Your task to perform on an android device: Empty the shopping cart on target. Search for "alienware aurora" on target, select the first entry, and add it to the cart. Image 0: 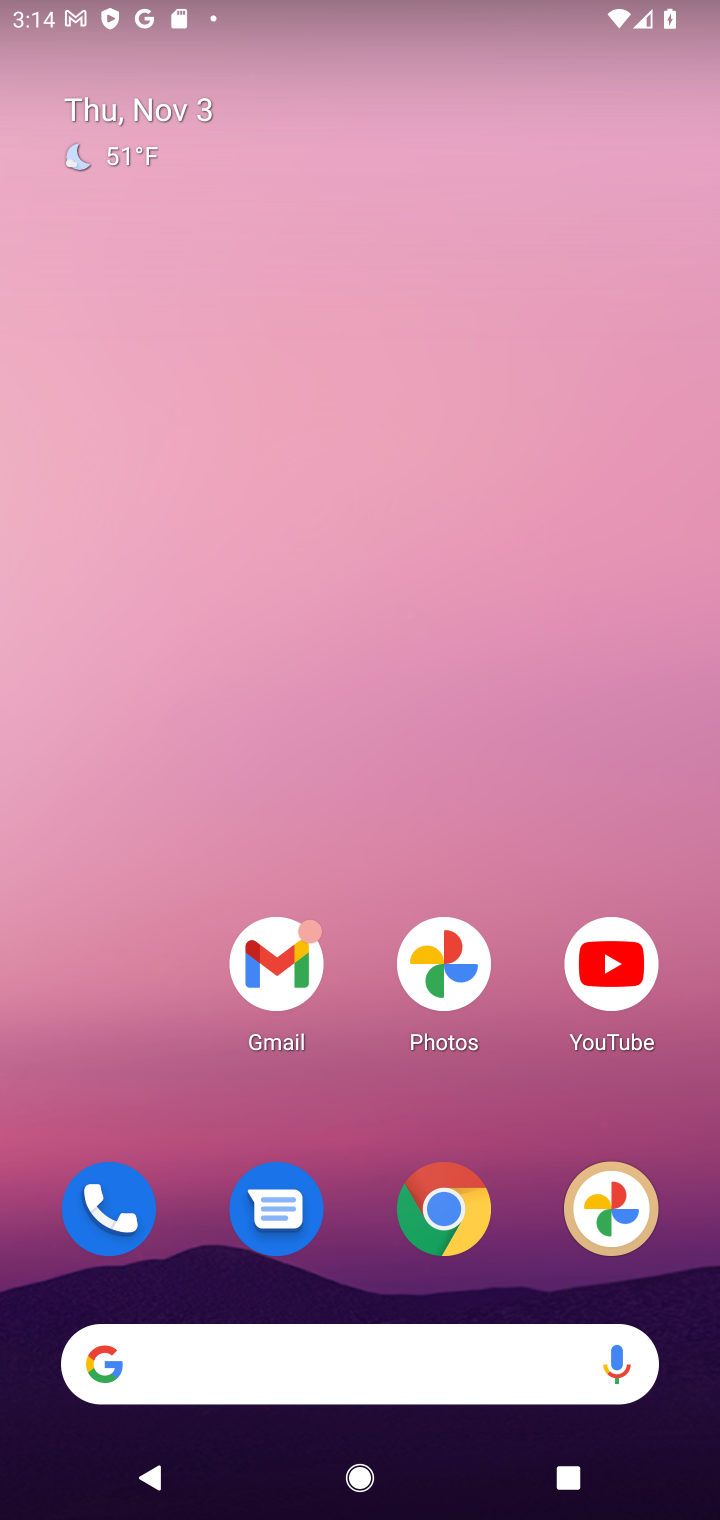
Step 0: click (424, 1262)
Your task to perform on an android device: Empty the shopping cart on target. Search for "alienware aurora" on target, select the first entry, and add it to the cart. Image 1: 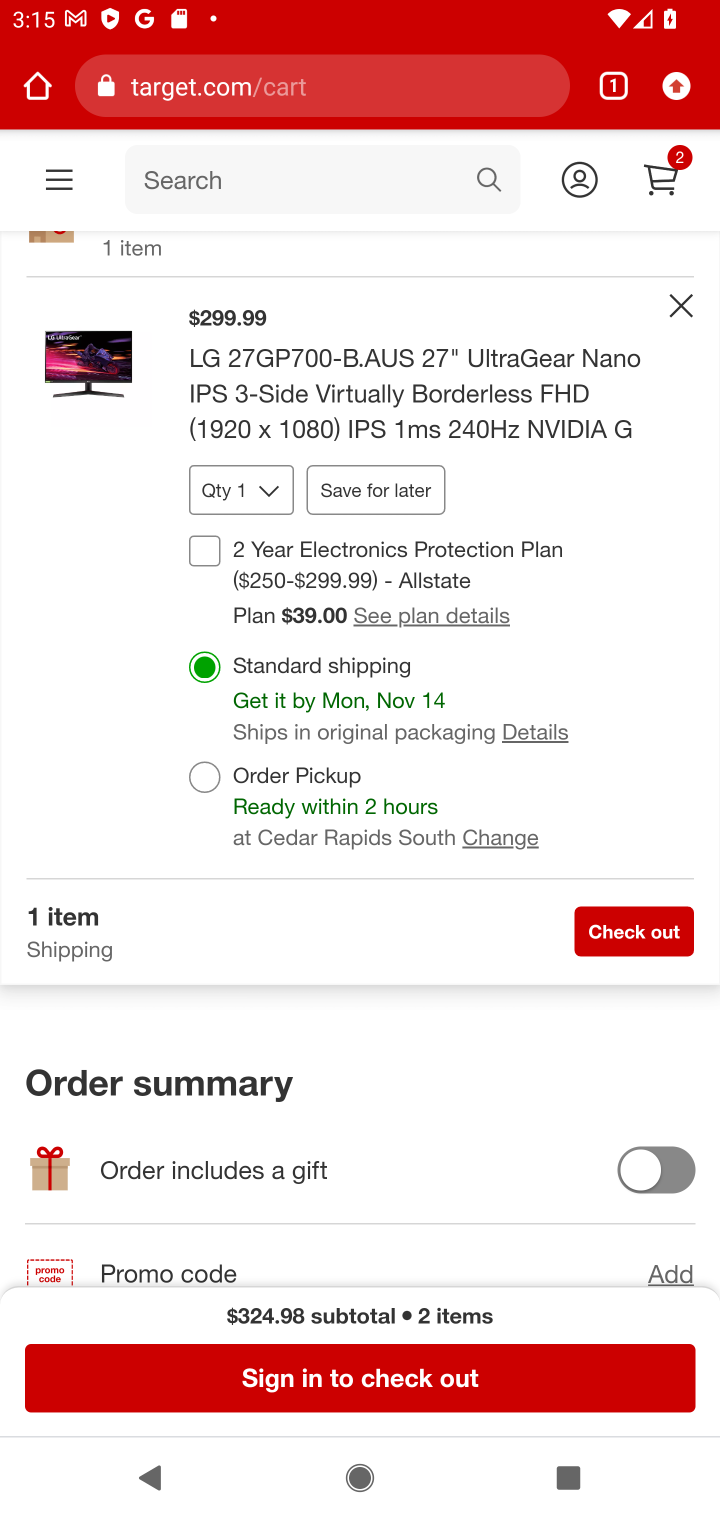
Step 1: click (367, 89)
Your task to perform on an android device: Empty the shopping cart on target. Search for "alienware aurora" on target, select the first entry, and add it to the cart. Image 2: 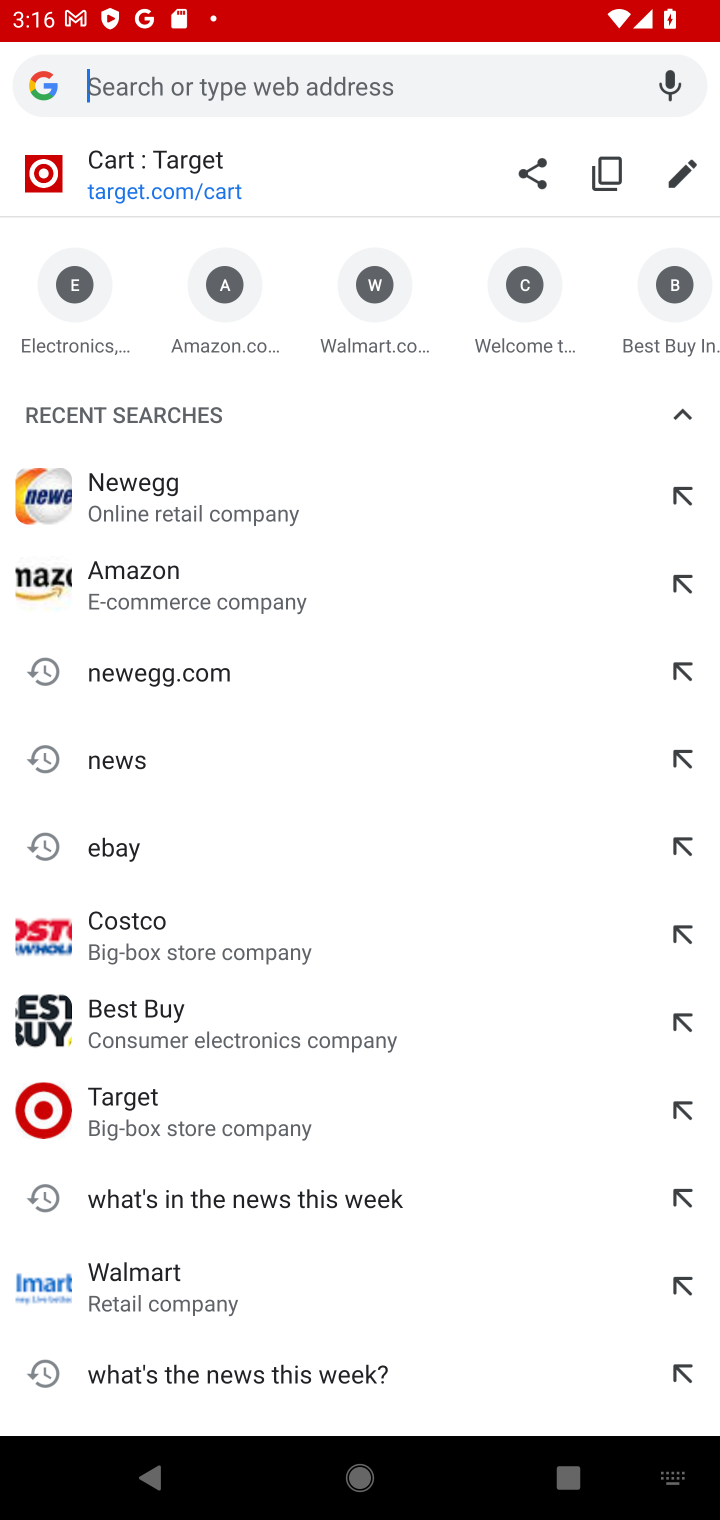
Step 2: type "target.com"
Your task to perform on an android device: Empty the shopping cart on target. Search for "alienware aurora" on target, select the first entry, and add it to the cart. Image 3: 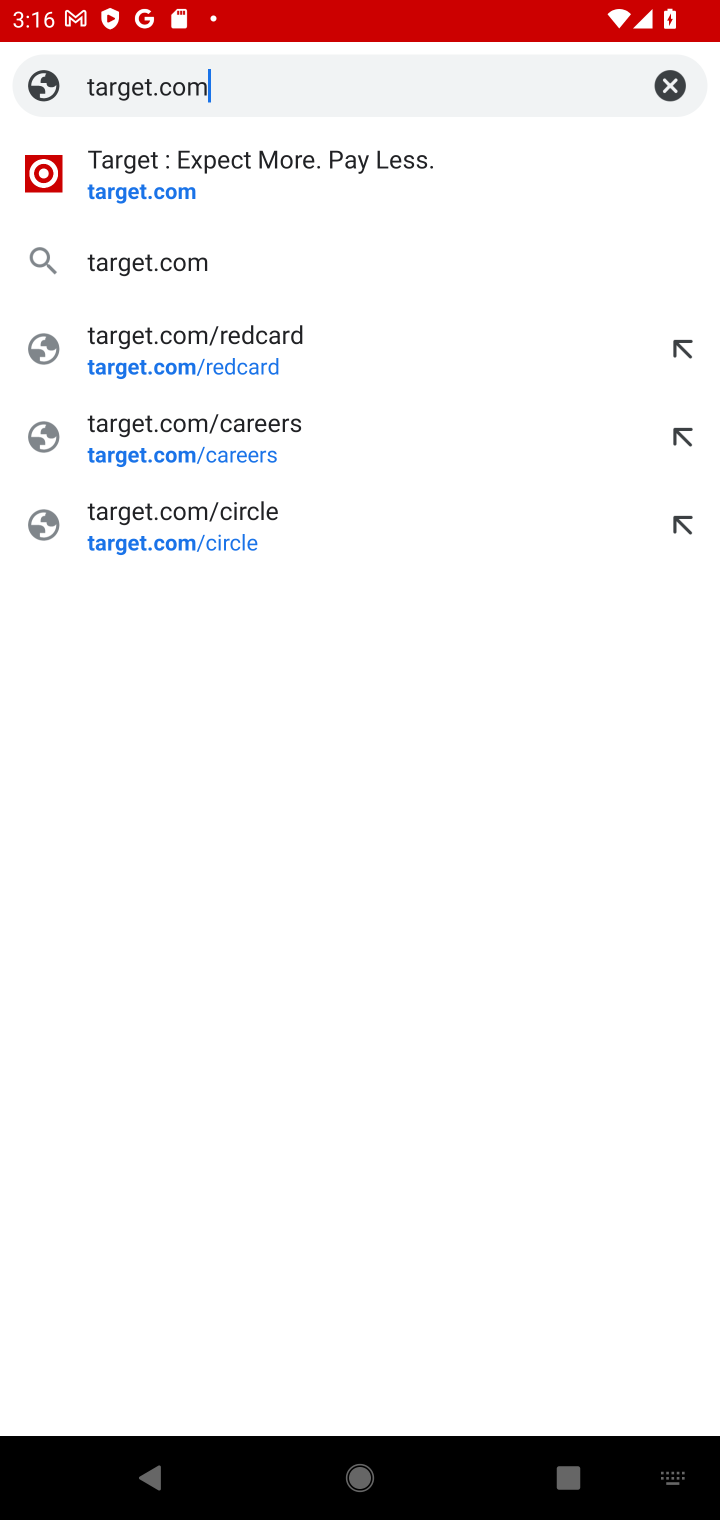
Step 3: click (245, 163)
Your task to perform on an android device: Empty the shopping cart on target. Search for "alienware aurora" on target, select the first entry, and add it to the cart. Image 4: 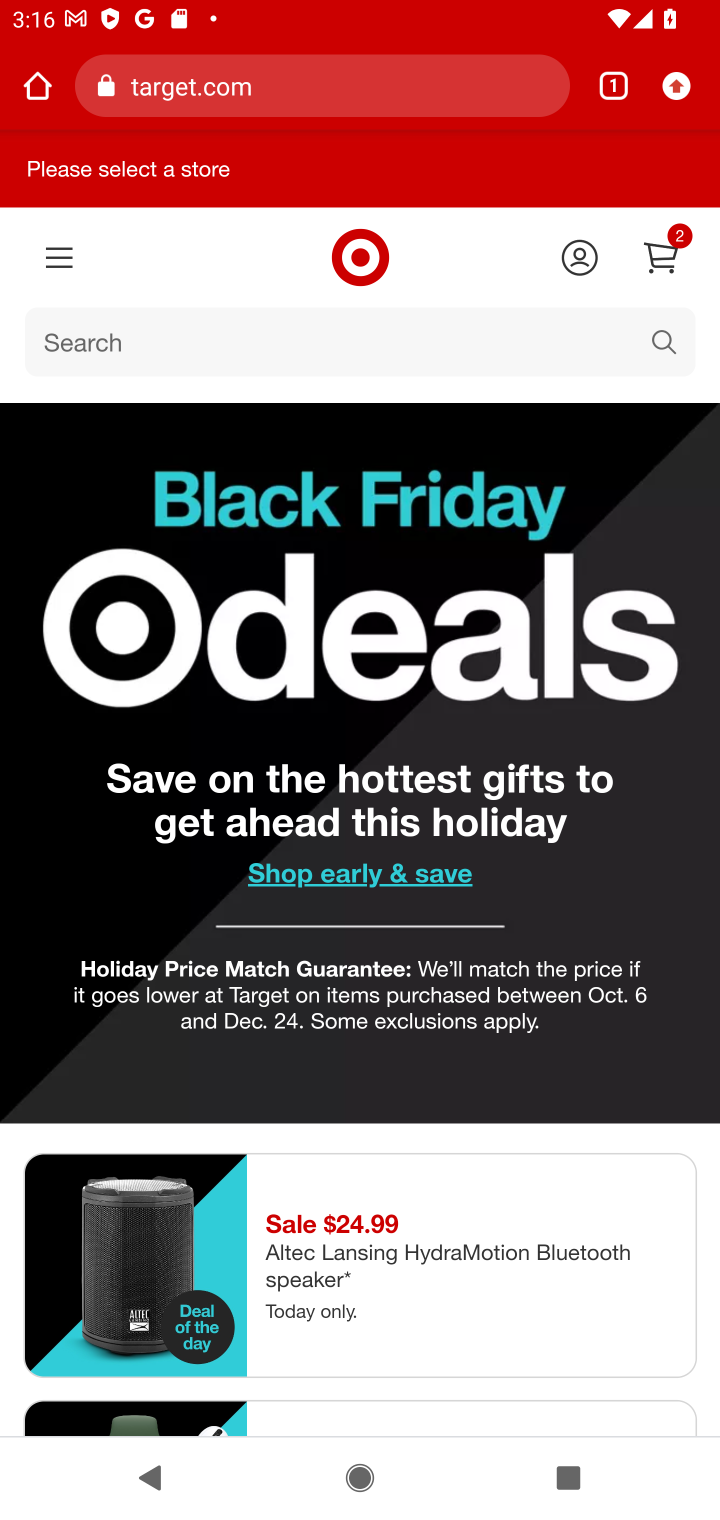
Step 4: click (245, 343)
Your task to perform on an android device: Empty the shopping cart on target. Search for "alienware aurora" on target, select the first entry, and add it to the cart. Image 5: 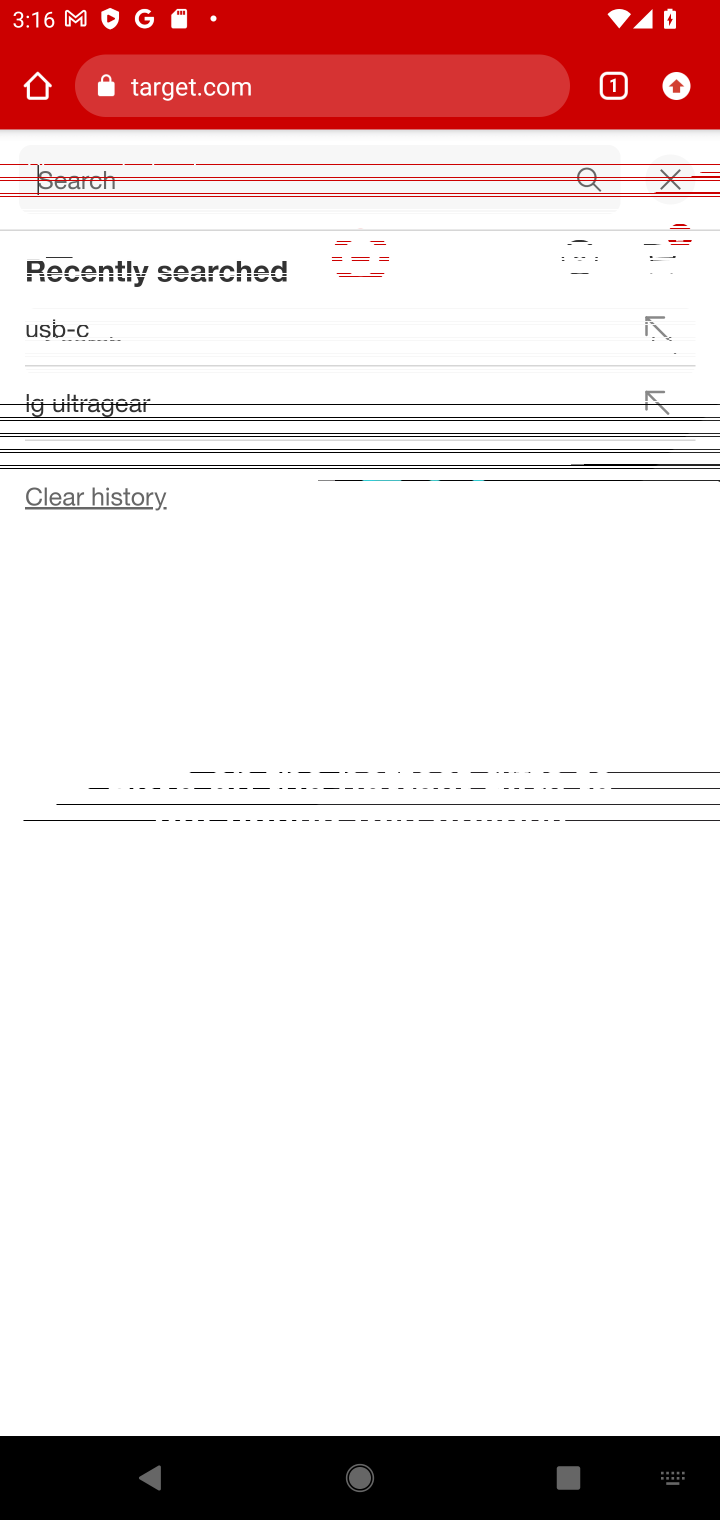
Step 5: type "alienware aurora"
Your task to perform on an android device: Empty the shopping cart on target. Search for "alienware aurora" on target, select the first entry, and add it to the cart. Image 6: 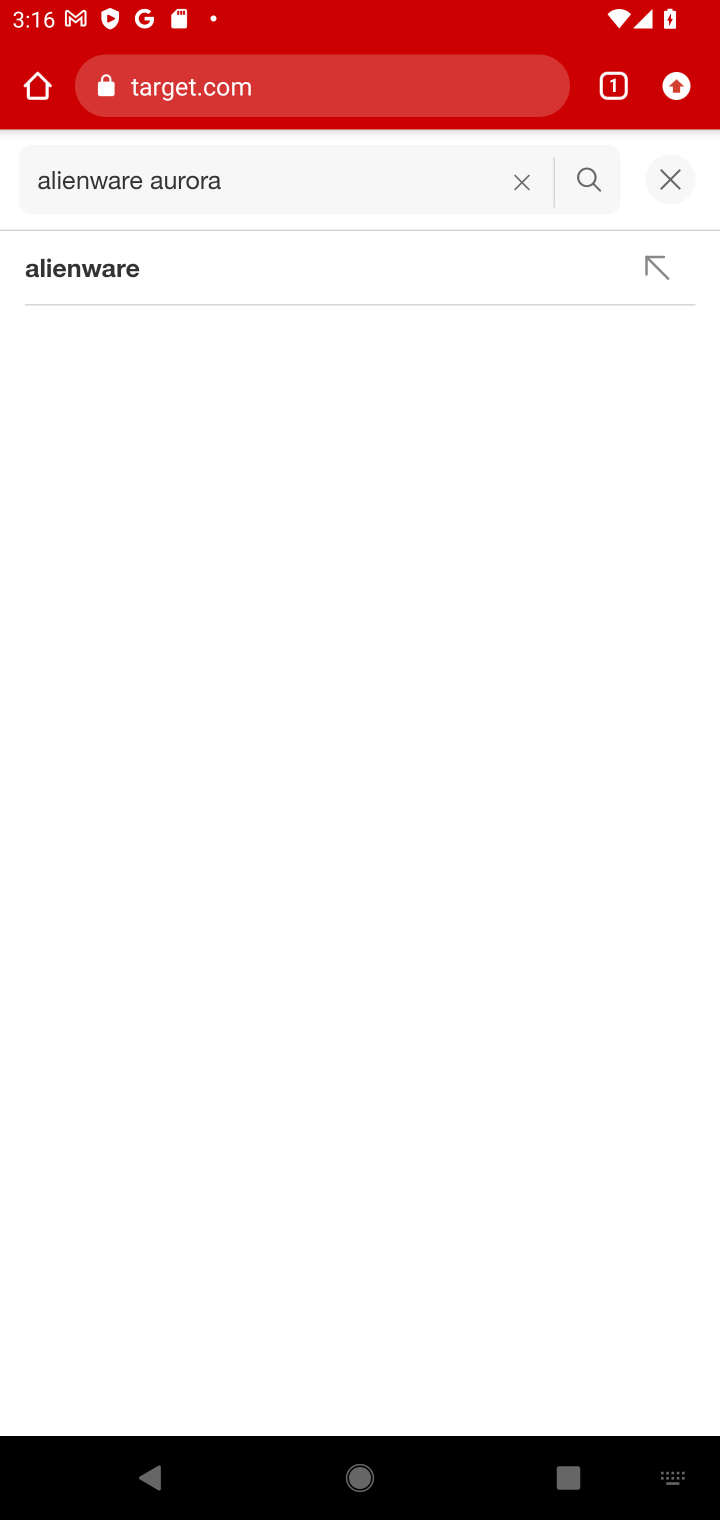
Step 6: press enter
Your task to perform on an android device: Empty the shopping cart on target. Search for "alienware aurora" on target, select the first entry, and add it to the cart. Image 7: 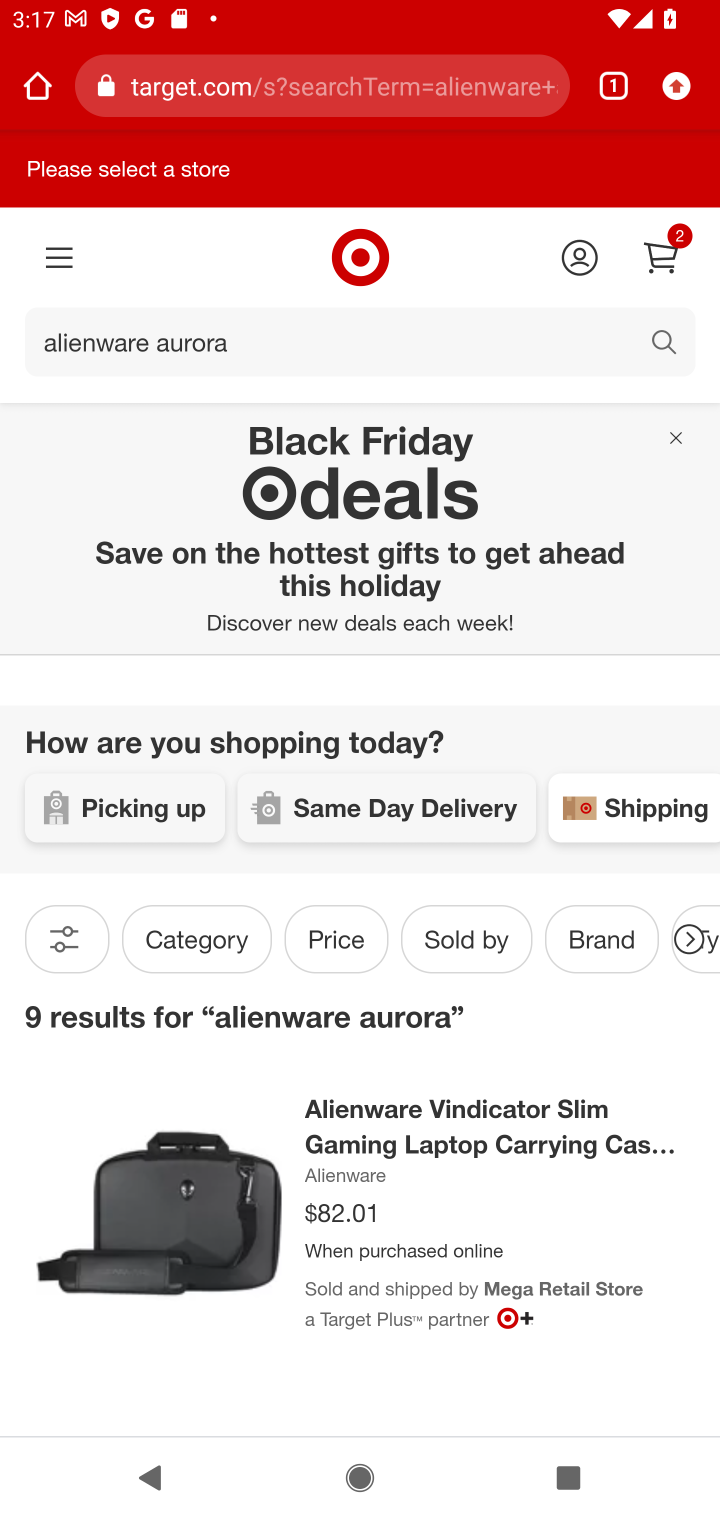
Step 7: click (241, 1206)
Your task to perform on an android device: Empty the shopping cart on target. Search for "alienware aurora" on target, select the first entry, and add it to the cart. Image 8: 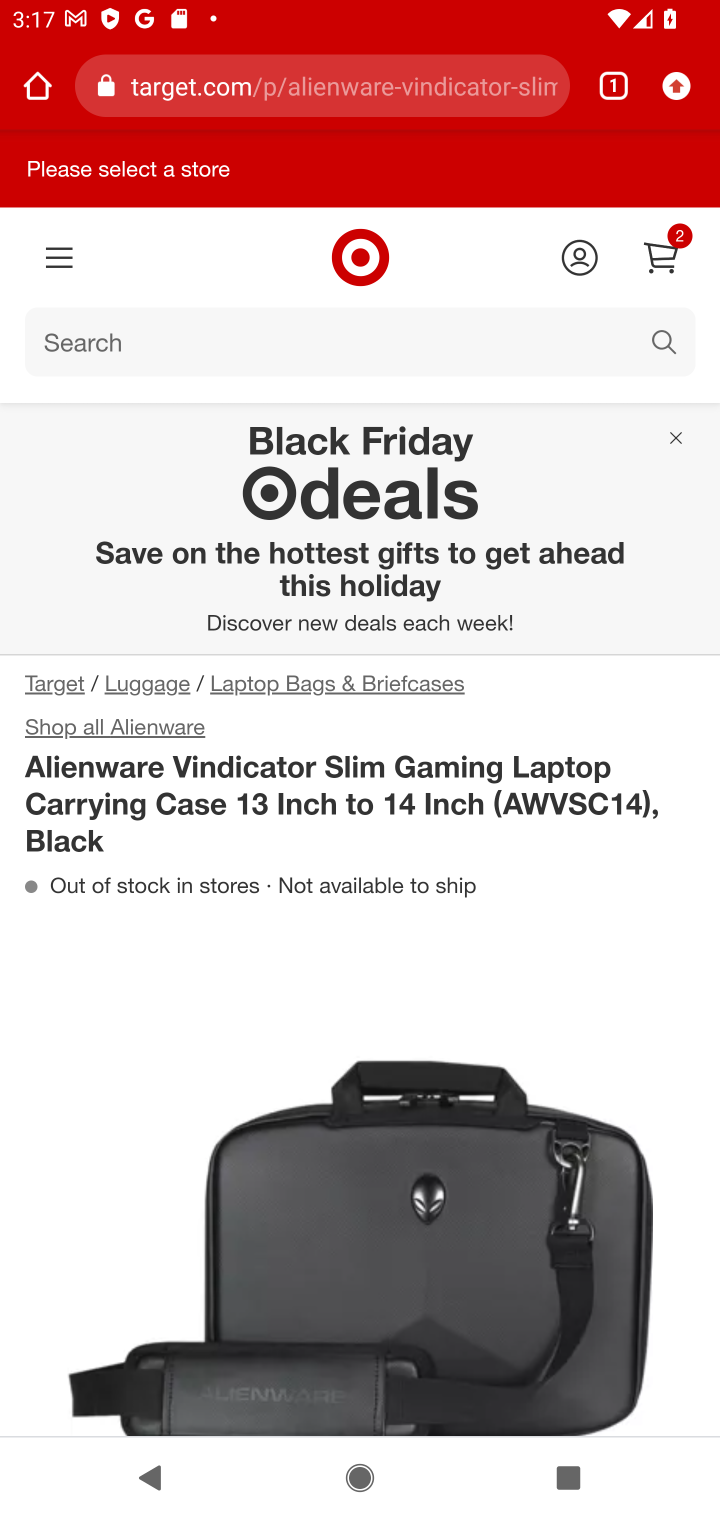
Step 8: drag from (434, 1264) to (431, 591)
Your task to perform on an android device: Empty the shopping cart on target. Search for "alienware aurora" on target, select the first entry, and add it to the cart. Image 9: 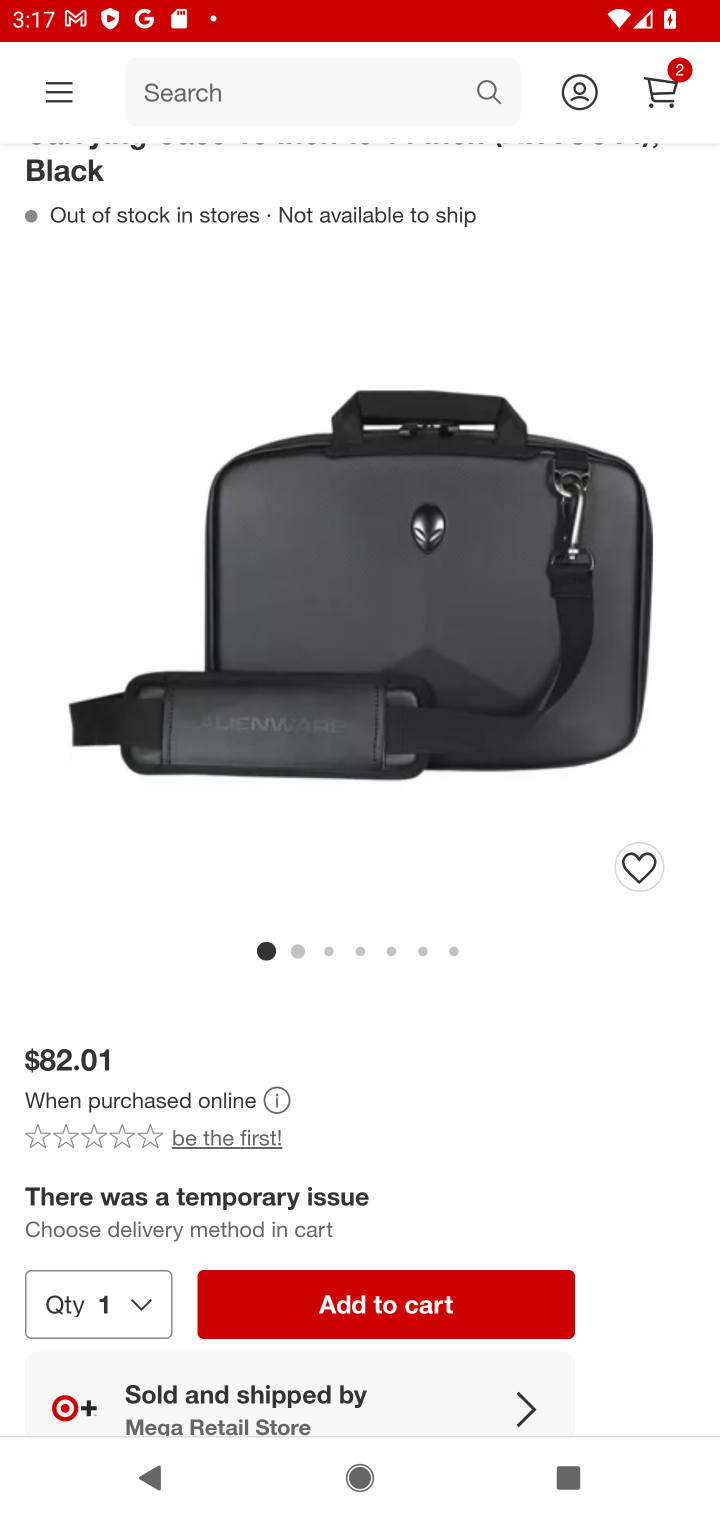
Step 9: click (397, 1312)
Your task to perform on an android device: Empty the shopping cart on target. Search for "alienware aurora" on target, select the first entry, and add it to the cart. Image 10: 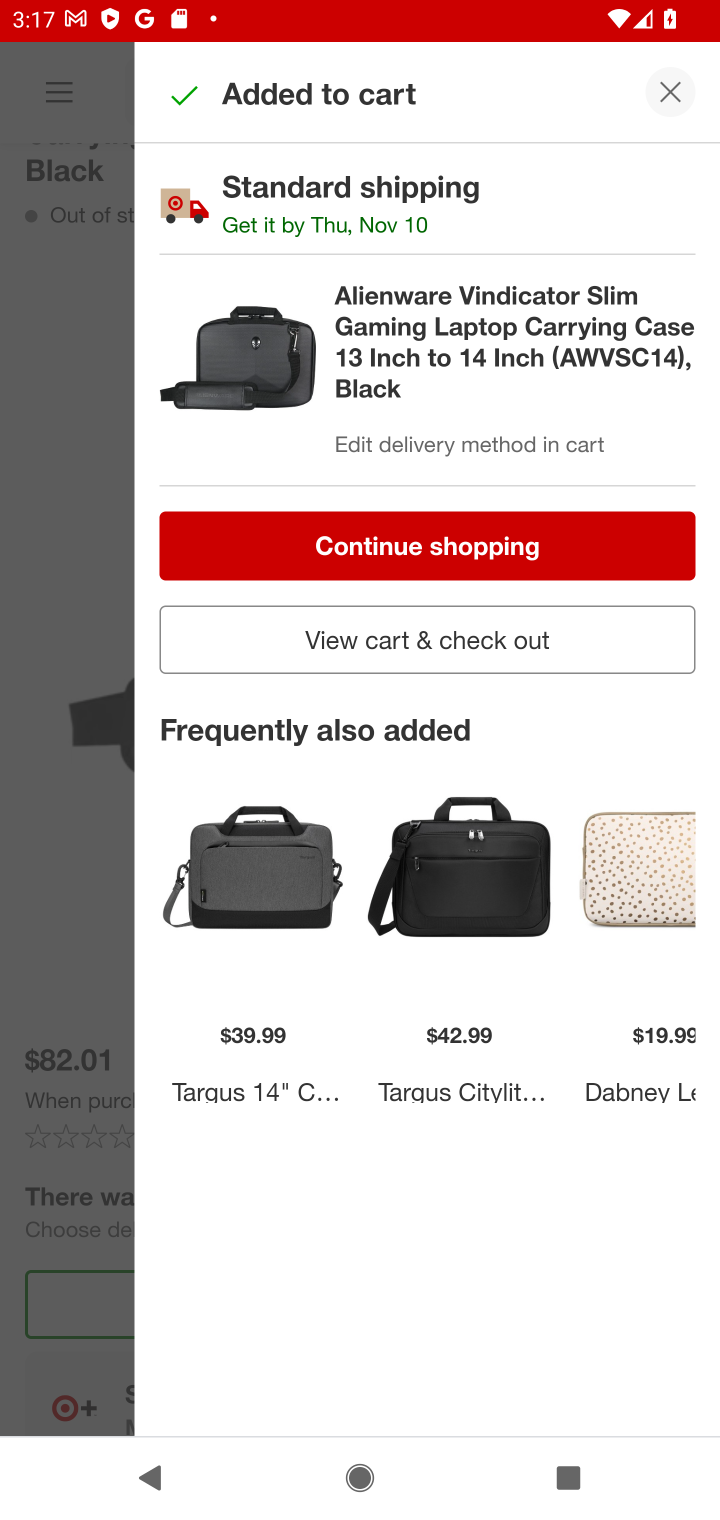
Step 10: task complete